Your task to perform on an android device: What is the recent news? Image 0: 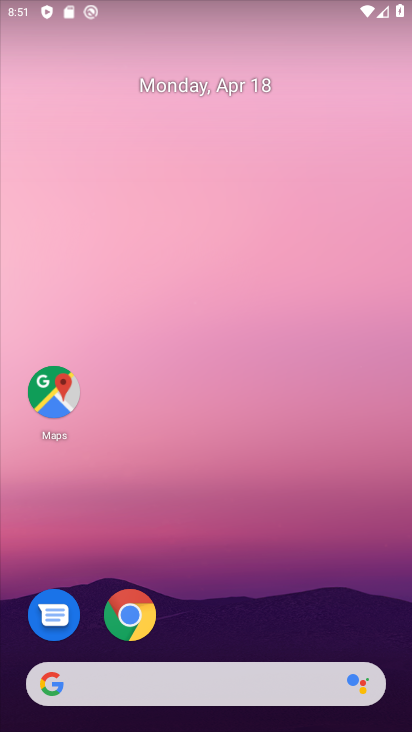
Step 0: click (146, 618)
Your task to perform on an android device: What is the recent news? Image 1: 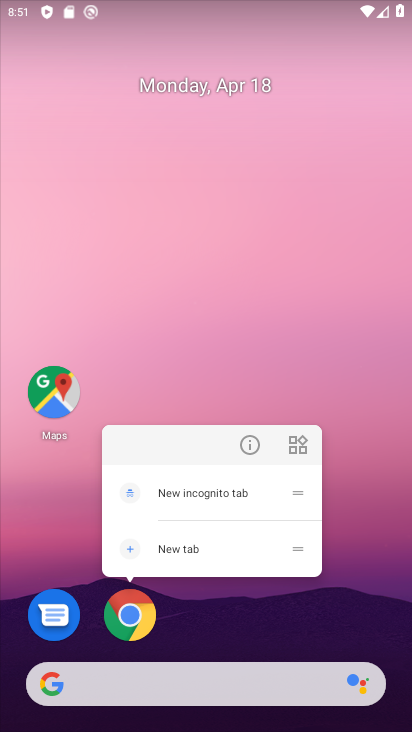
Step 1: click (142, 623)
Your task to perform on an android device: What is the recent news? Image 2: 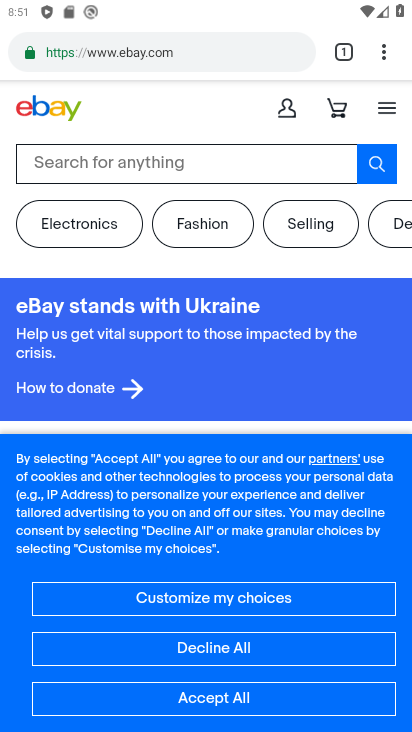
Step 2: click (343, 53)
Your task to perform on an android device: What is the recent news? Image 3: 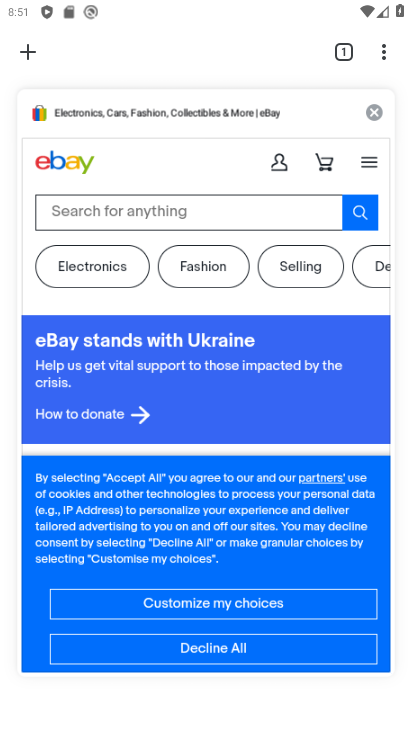
Step 3: click (22, 54)
Your task to perform on an android device: What is the recent news? Image 4: 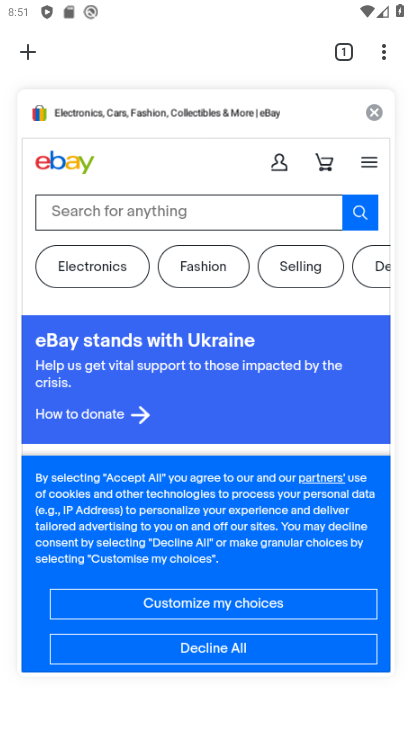
Step 4: click (56, 75)
Your task to perform on an android device: What is the recent news? Image 5: 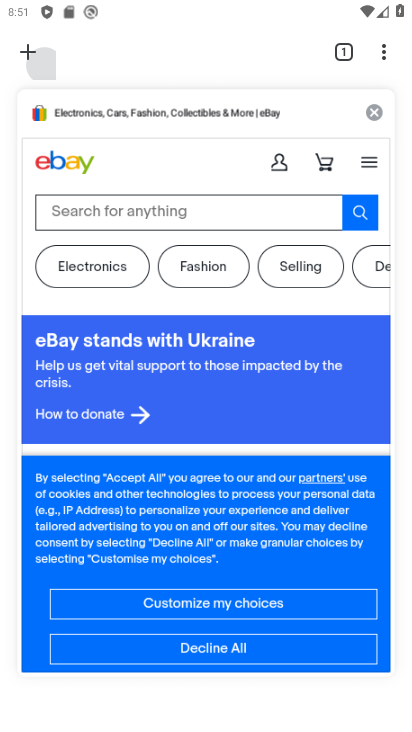
Step 5: click (30, 45)
Your task to perform on an android device: What is the recent news? Image 6: 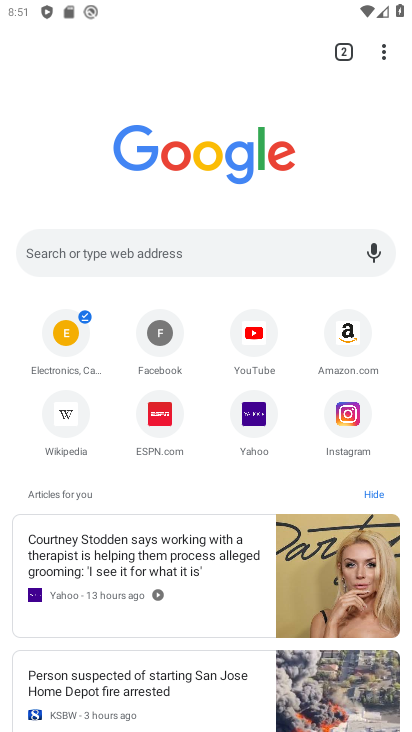
Step 6: click (166, 253)
Your task to perform on an android device: What is the recent news? Image 7: 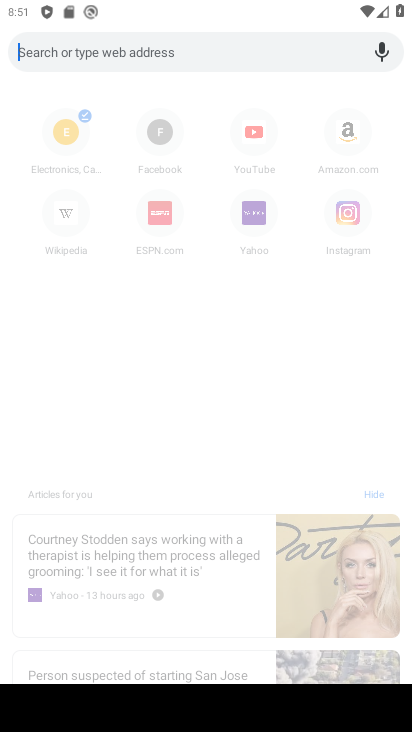
Step 7: type "recent news"
Your task to perform on an android device: What is the recent news? Image 8: 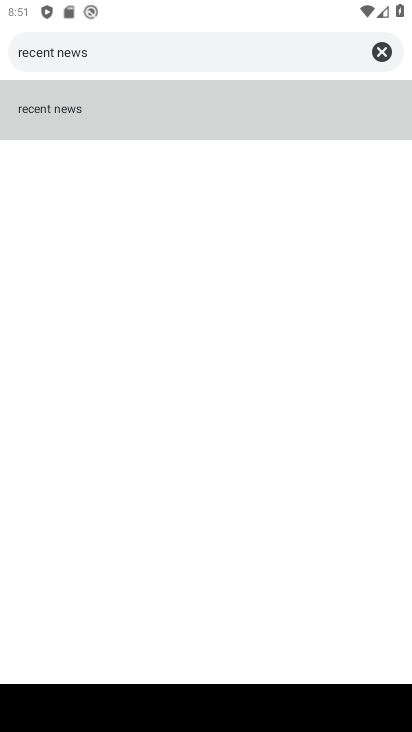
Step 8: click (60, 106)
Your task to perform on an android device: What is the recent news? Image 9: 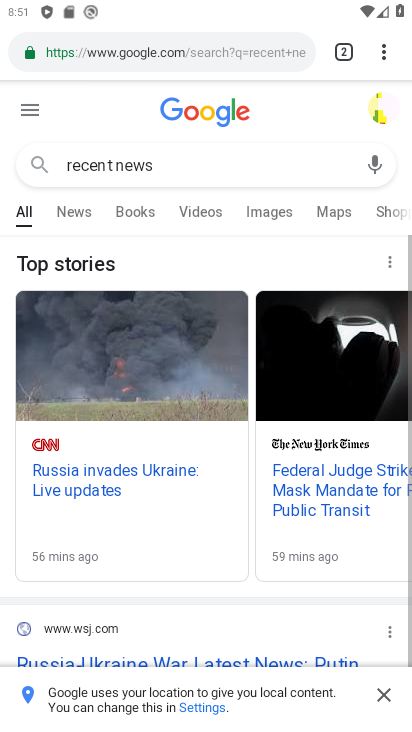
Step 9: click (380, 696)
Your task to perform on an android device: What is the recent news? Image 10: 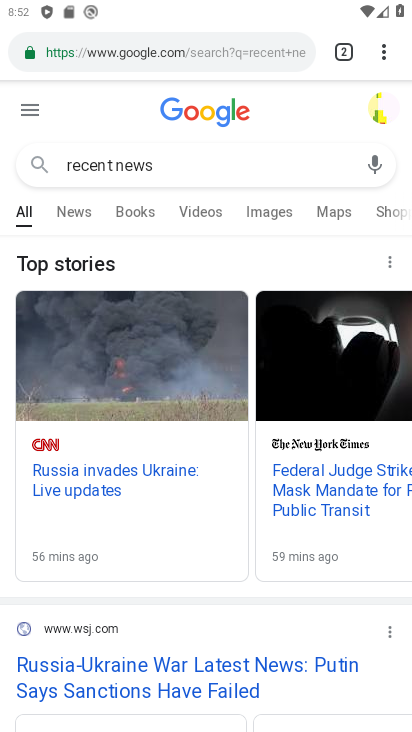
Step 10: task complete